Your task to perform on an android device: Do I have any events today? Image 0: 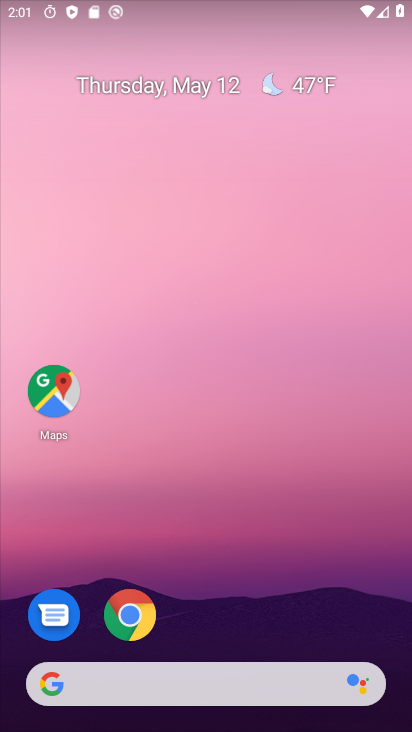
Step 0: drag from (223, 628) to (211, 206)
Your task to perform on an android device: Do I have any events today? Image 1: 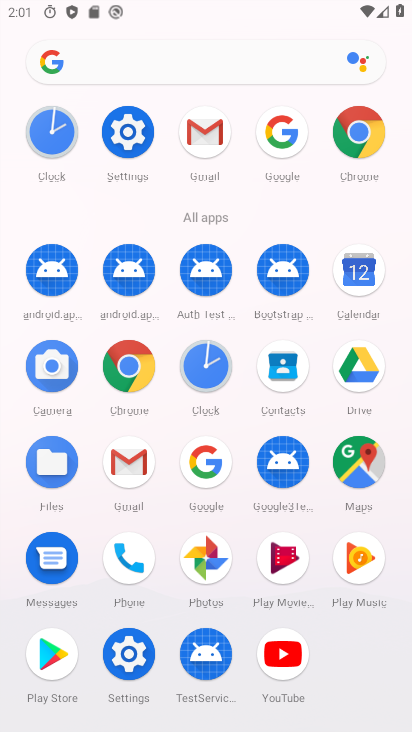
Step 1: click (352, 274)
Your task to perform on an android device: Do I have any events today? Image 2: 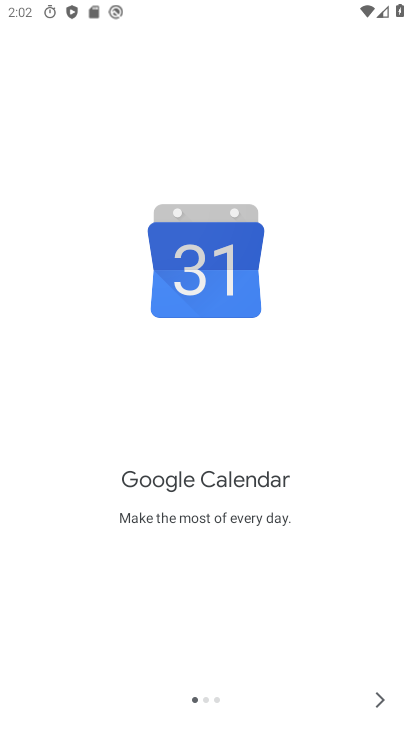
Step 2: click (376, 709)
Your task to perform on an android device: Do I have any events today? Image 3: 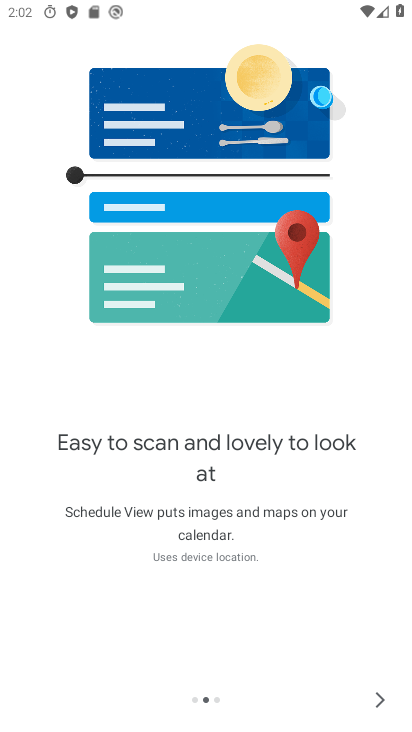
Step 3: click (376, 709)
Your task to perform on an android device: Do I have any events today? Image 4: 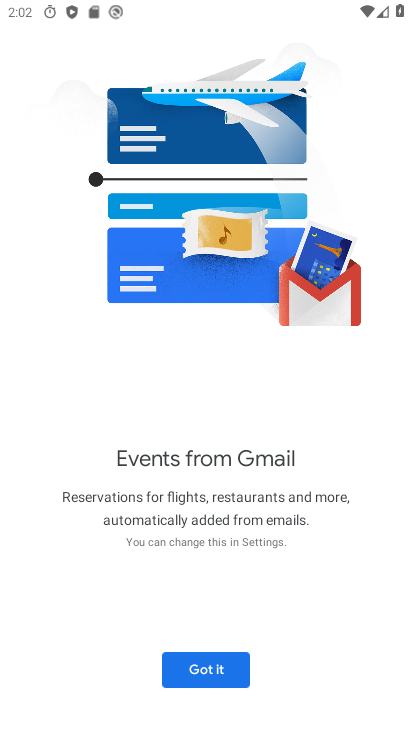
Step 4: drag from (376, 709) to (272, 597)
Your task to perform on an android device: Do I have any events today? Image 5: 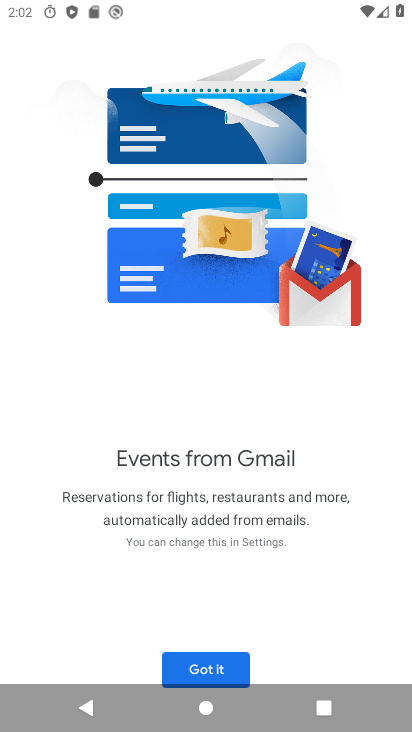
Step 5: click (221, 655)
Your task to perform on an android device: Do I have any events today? Image 6: 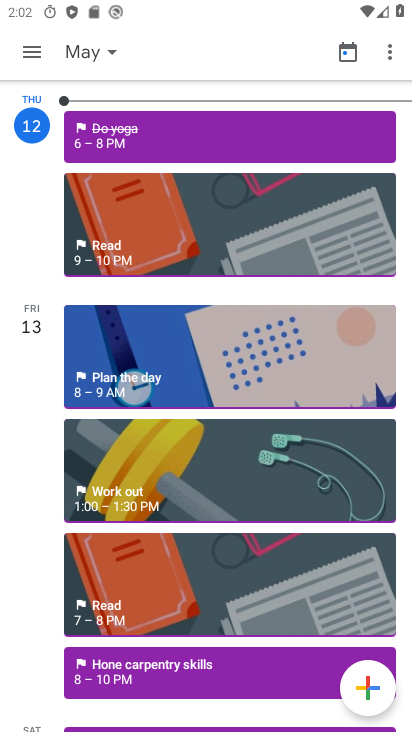
Step 6: click (115, 52)
Your task to perform on an android device: Do I have any events today? Image 7: 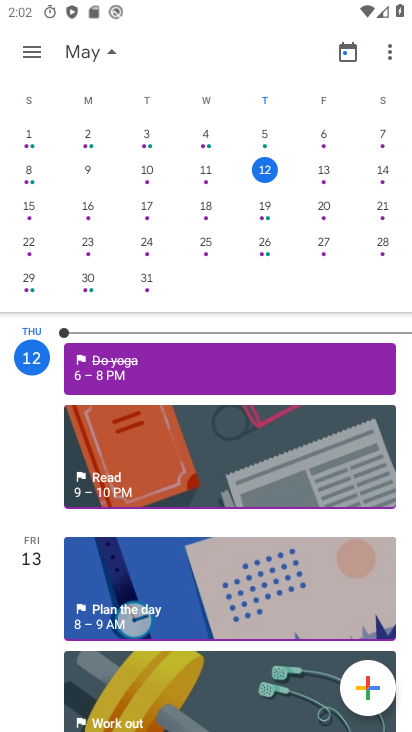
Step 7: click (265, 169)
Your task to perform on an android device: Do I have any events today? Image 8: 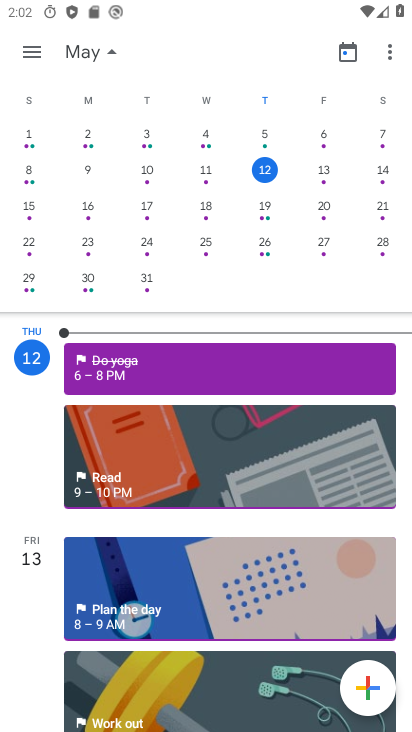
Step 8: task complete